Your task to perform on an android device: change keyboard looks Image 0: 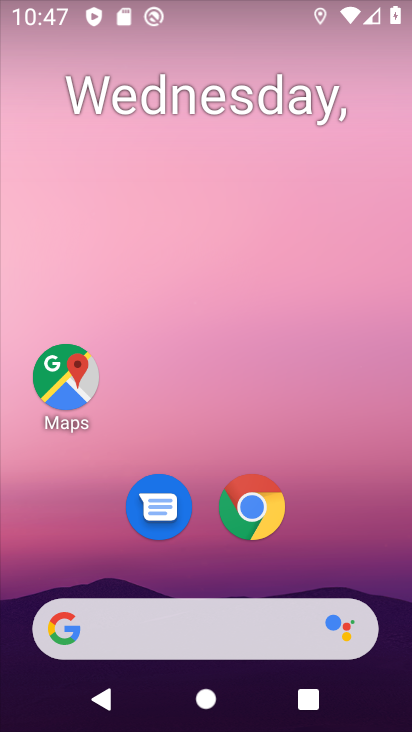
Step 0: drag from (313, 542) to (335, 52)
Your task to perform on an android device: change keyboard looks Image 1: 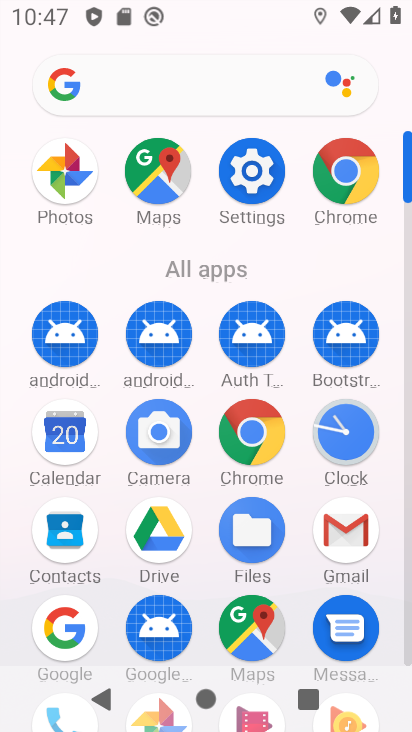
Step 1: click (256, 171)
Your task to perform on an android device: change keyboard looks Image 2: 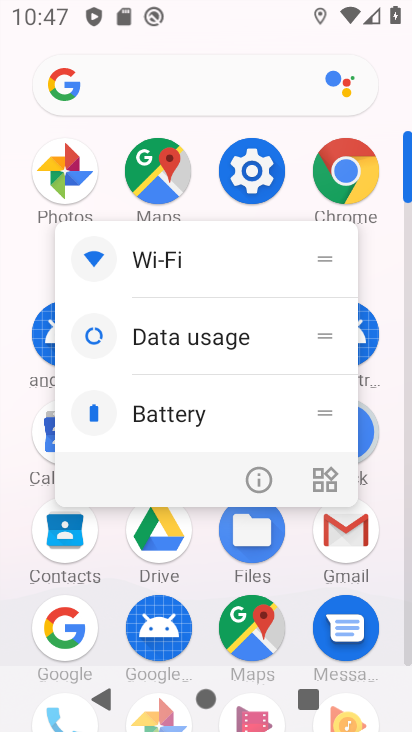
Step 2: click (257, 169)
Your task to perform on an android device: change keyboard looks Image 3: 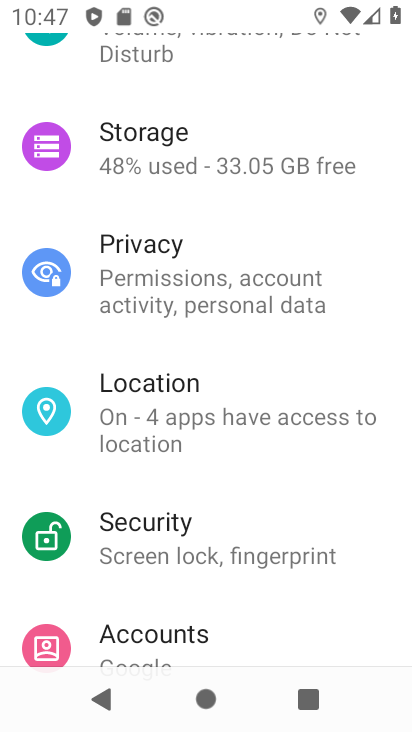
Step 3: drag from (364, 250) to (379, 438)
Your task to perform on an android device: change keyboard looks Image 4: 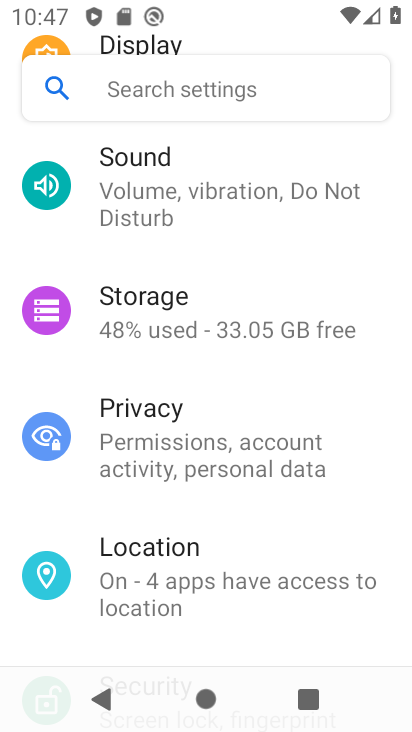
Step 4: drag from (385, 229) to (376, 433)
Your task to perform on an android device: change keyboard looks Image 5: 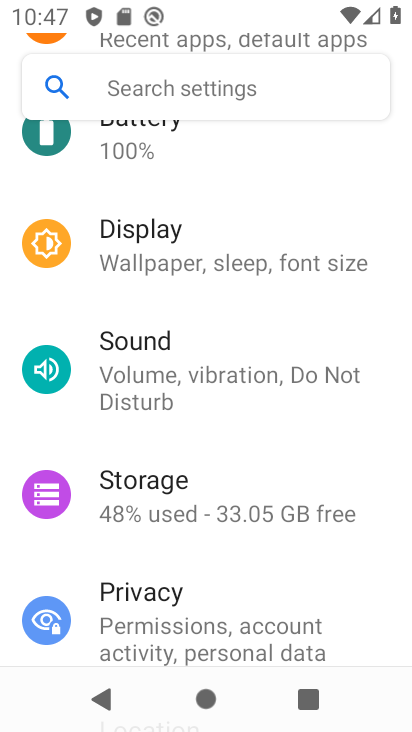
Step 5: drag from (372, 192) to (377, 412)
Your task to perform on an android device: change keyboard looks Image 6: 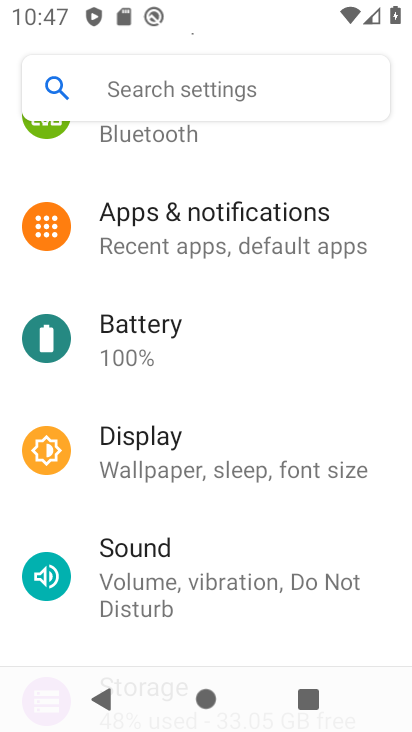
Step 6: drag from (373, 407) to (369, 223)
Your task to perform on an android device: change keyboard looks Image 7: 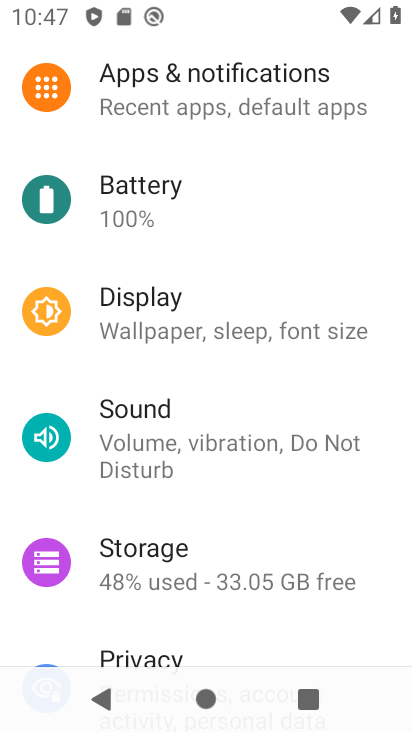
Step 7: drag from (376, 409) to (392, 241)
Your task to perform on an android device: change keyboard looks Image 8: 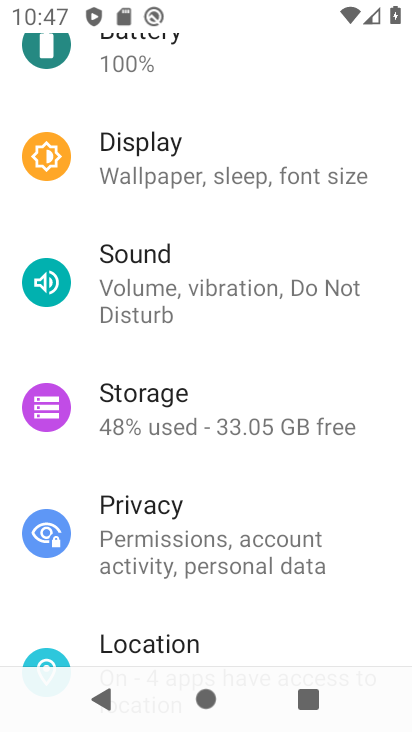
Step 8: drag from (375, 504) to (384, 296)
Your task to perform on an android device: change keyboard looks Image 9: 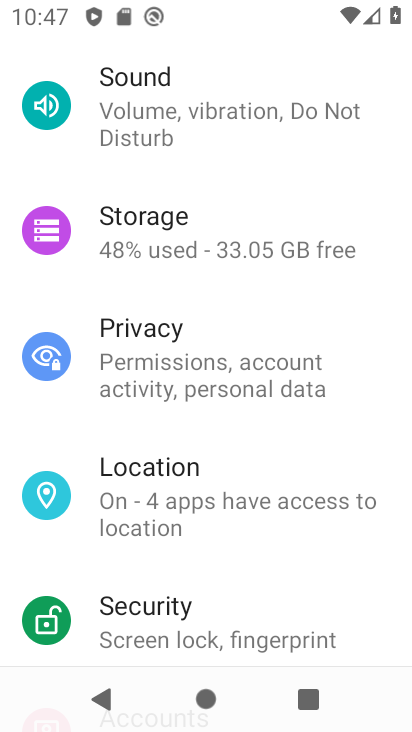
Step 9: drag from (375, 426) to (379, 265)
Your task to perform on an android device: change keyboard looks Image 10: 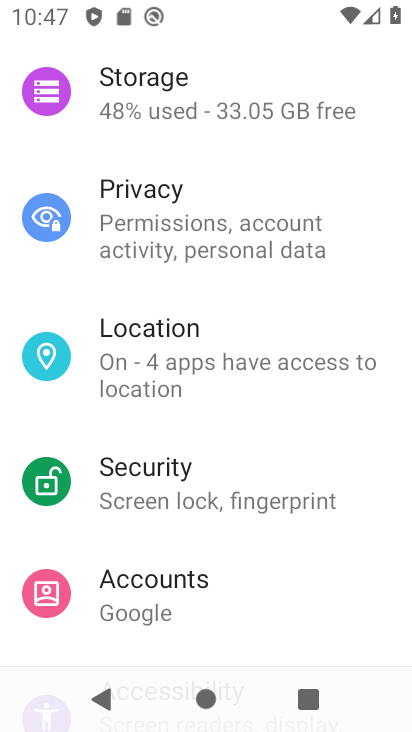
Step 10: drag from (370, 537) to (378, 327)
Your task to perform on an android device: change keyboard looks Image 11: 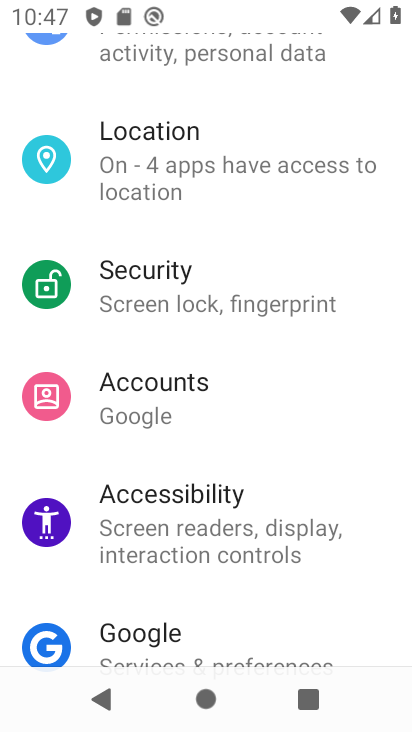
Step 11: drag from (359, 582) to (356, 382)
Your task to perform on an android device: change keyboard looks Image 12: 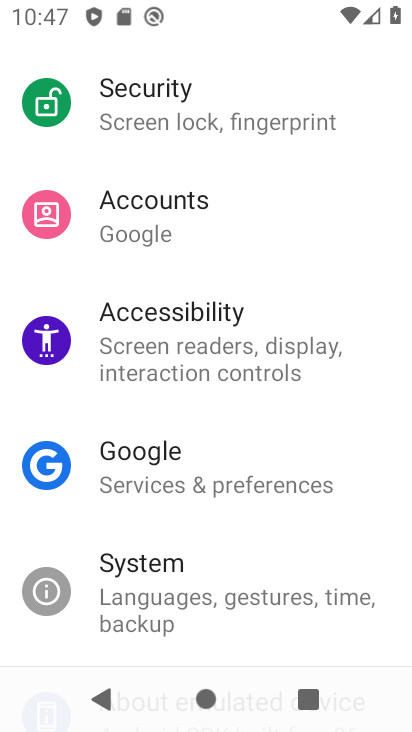
Step 12: drag from (372, 527) to (378, 360)
Your task to perform on an android device: change keyboard looks Image 13: 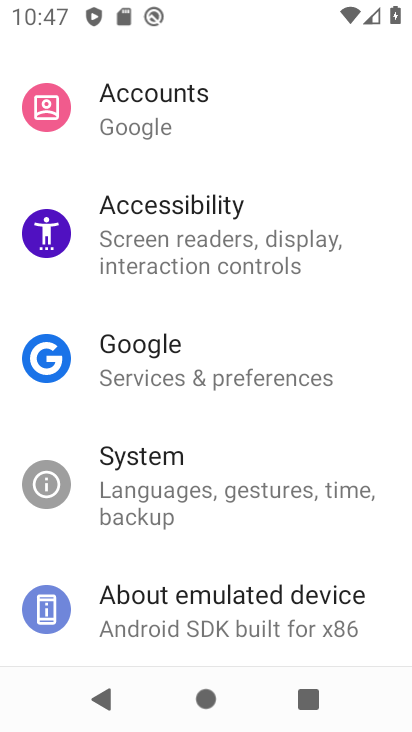
Step 13: click (201, 486)
Your task to perform on an android device: change keyboard looks Image 14: 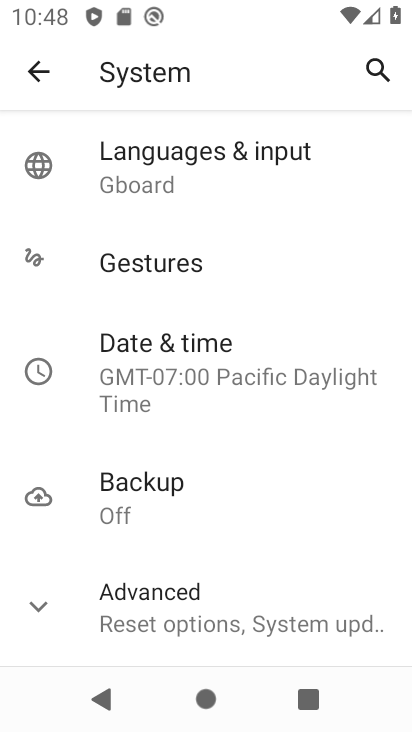
Step 14: click (178, 165)
Your task to perform on an android device: change keyboard looks Image 15: 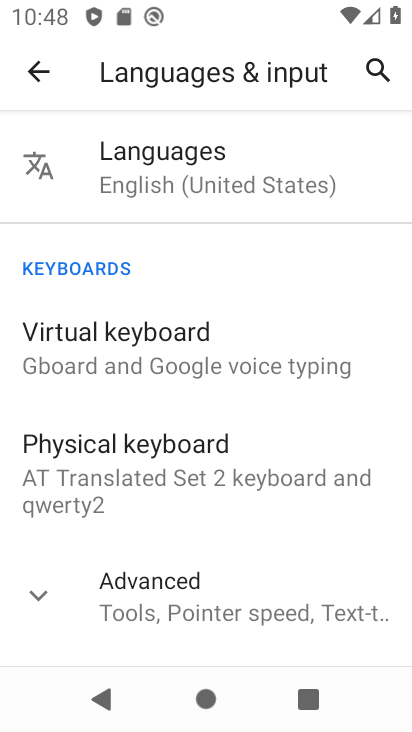
Step 15: click (191, 368)
Your task to perform on an android device: change keyboard looks Image 16: 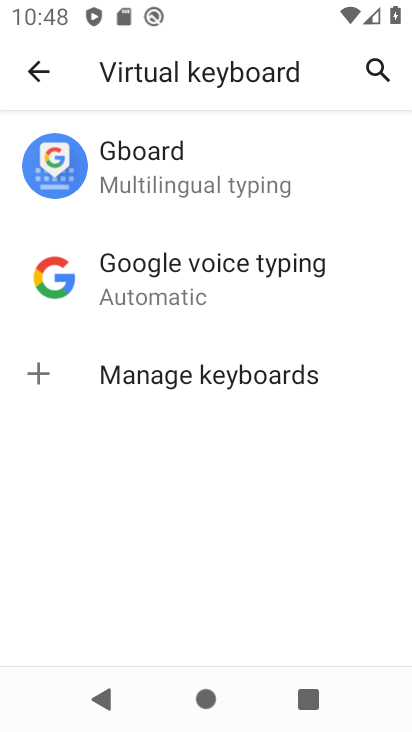
Step 16: click (168, 160)
Your task to perform on an android device: change keyboard looks Image 17: 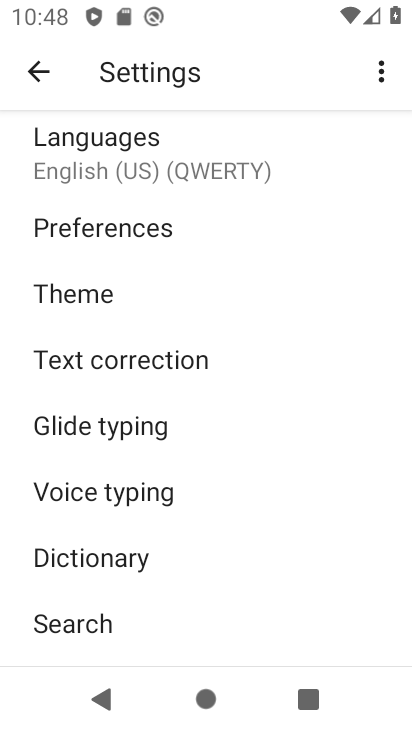
Step 17: click (93, 298)
Your task to perform on an android device: change keyboard looks Image 18: 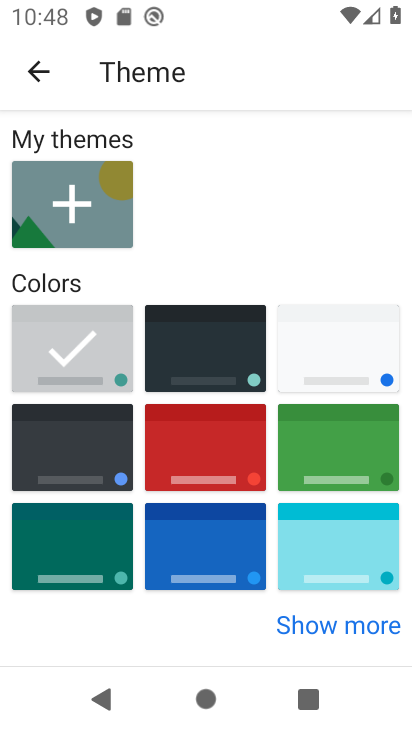
Step 18: click (213, 439)
Your task to perform on an android device: change keyboard looks Image 19: 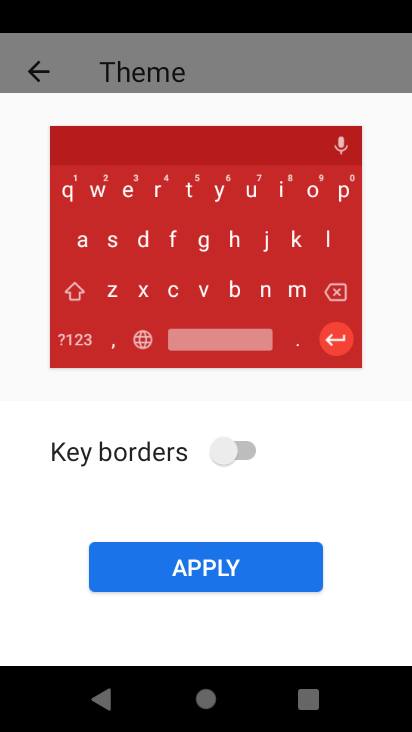
Step 19: task complete